Your task to perform on an android device: Check the news Image 0: 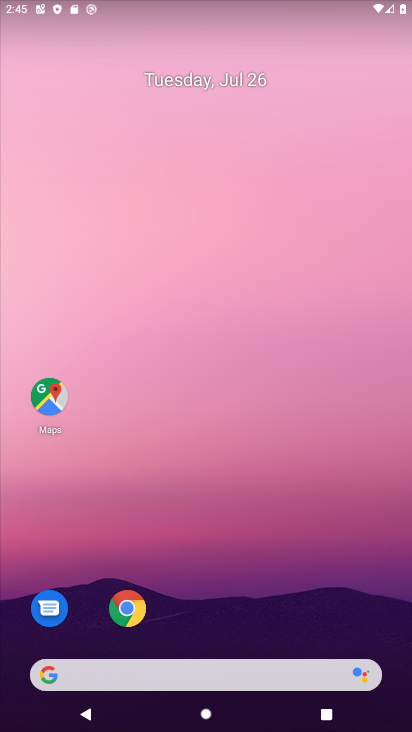
Step 0: click (220, 676)
Your task to perform on an android device: Check the news Image 1: 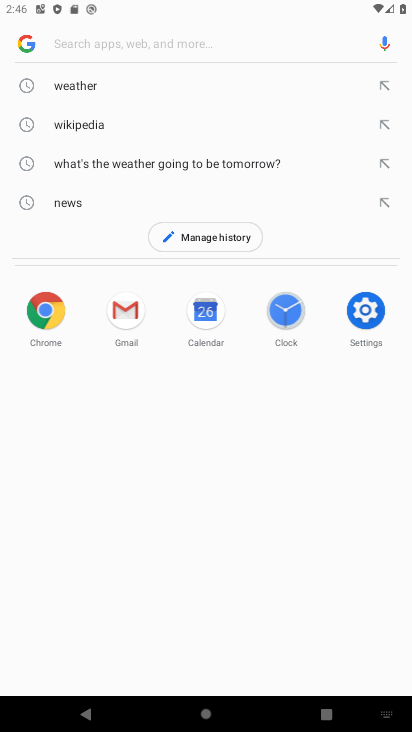
Step 1: type "Check the news"
Your task to perform on an android device: Check the news Image 2: 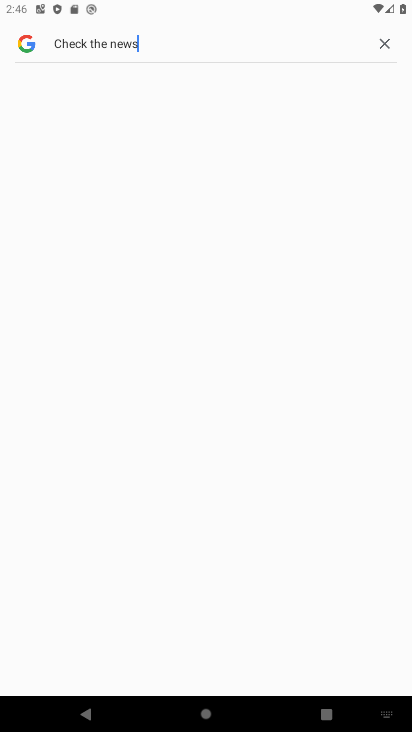
Step 2: press enter
Your task to perform on an android device: Check the news Image 3: 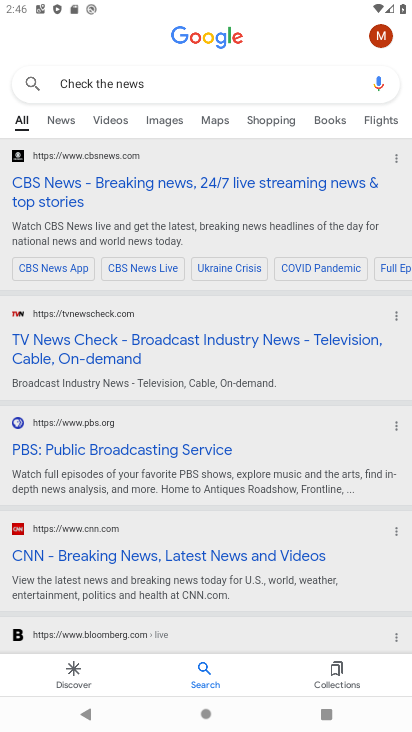
Step 3: task complete